Your task to perform on an android device: Open Yahoo.com Image 0: 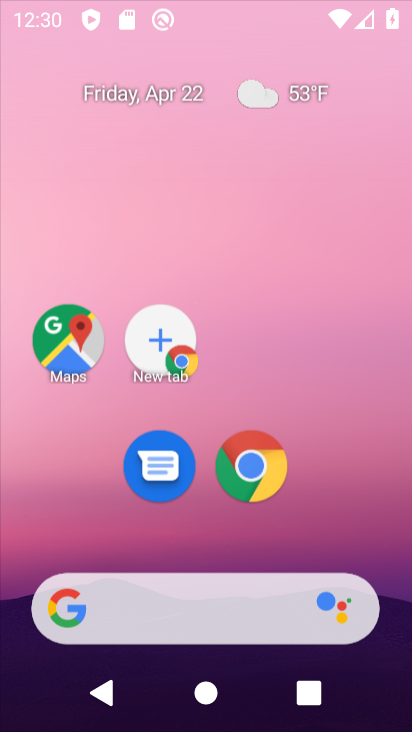
Step 0: click (330, 81)
Your task to perform on an android device: Open Yahoo.com Image 1: 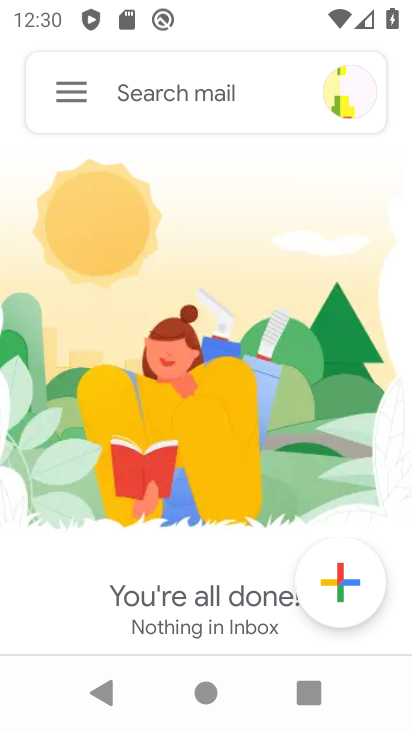
Step 1: press back button
Your task to perform on an android device: Open Yahoo.com Image 2: 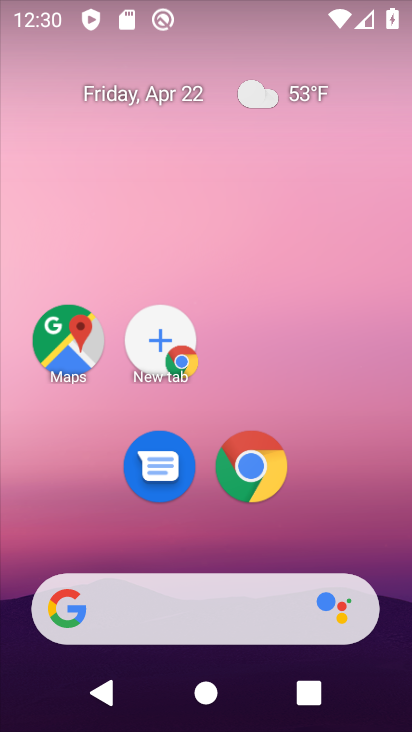
Step 2: drag from (341, 545) to (235, 34)
Your task to perform on an android device: Open Yahoo.com Image 3: 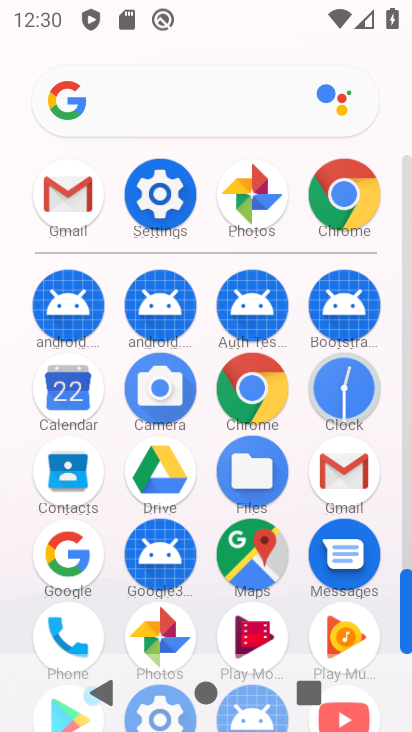
Step 3: click (336, 190)
Your task to perform on an android device: Open Yahoo.com Image 4: 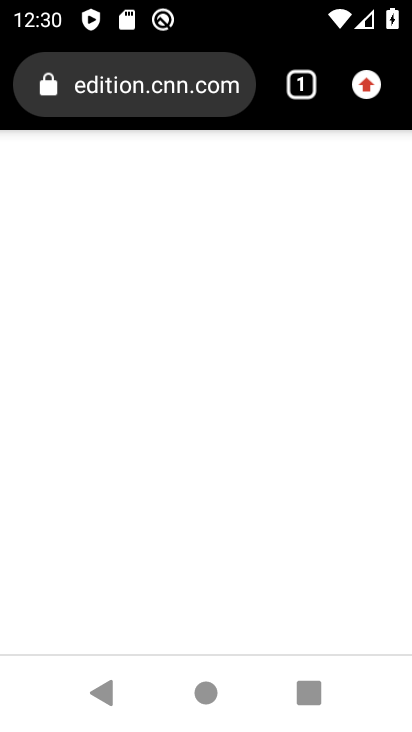
Step 4: click (158, 92)
Your task to perform on an android device: Open Yahoo.com Image 5: 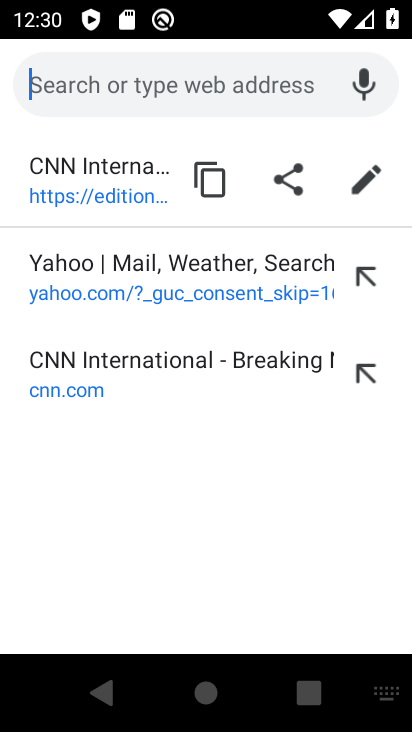
Step 5: type "Yahoo.com"
Your task to perform on an android device: Open Yahoo.com Image 6: 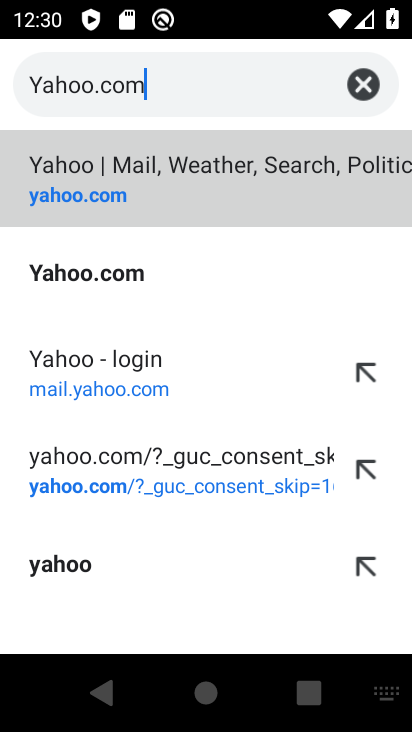
Step 6: type ""
Your task to perform on an android device: Open Yahoo.com Image 7: 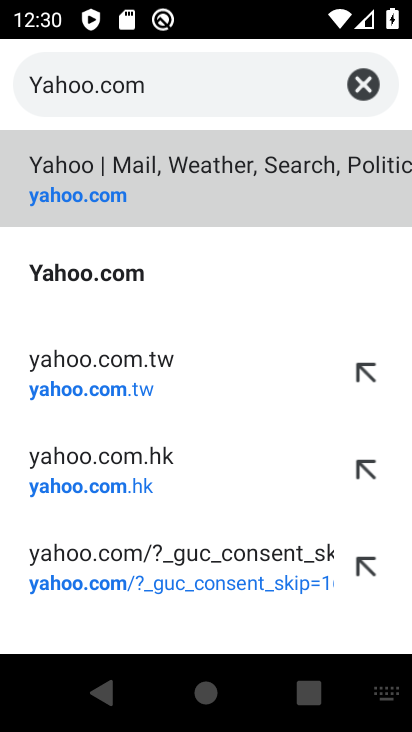
Step 7: click (176, 164)
Your task to perform on an android device: Open Yahoo.com Image 8: 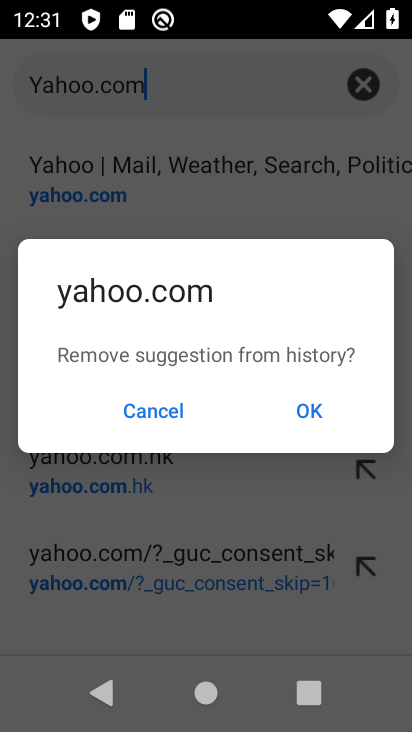
Step 8: click (304, 408)
Your task to perform on an android device: Open Yahoo.com Image 9: 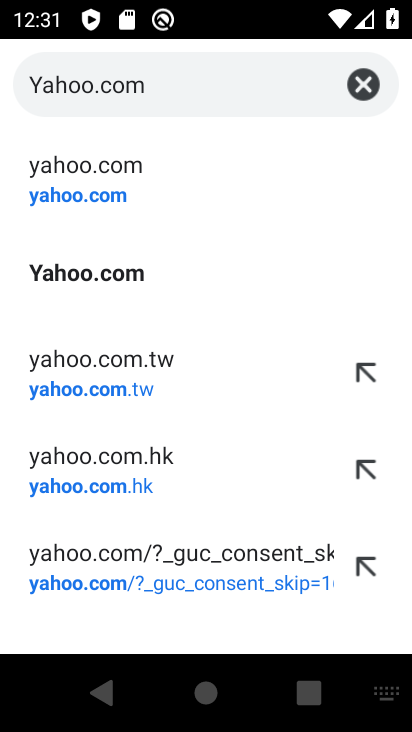
Step 9: click (123, 185)
Your task to perform on an android device: Open Yahoo.com Image 10: 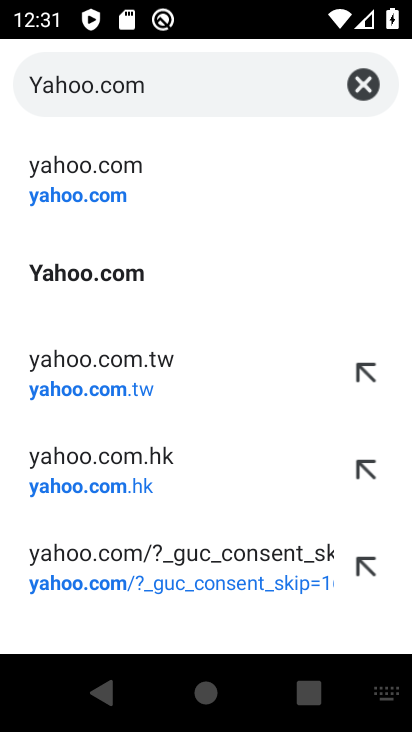
Step 10: click (122, 179)
Your task to perform on an android device: Open Yahoo.com Image 11: 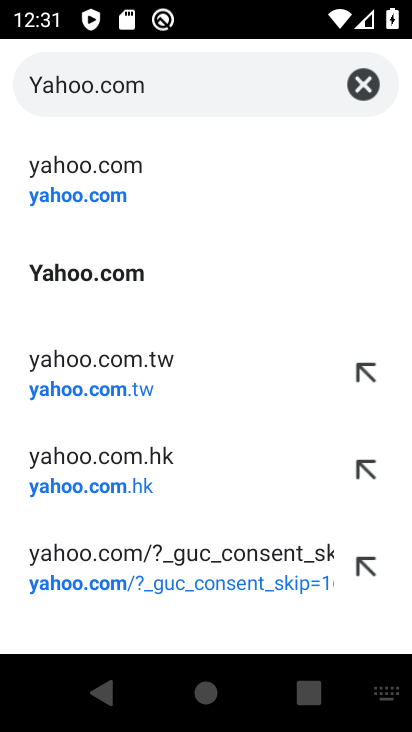
Step 11: click (122, 269)
Your task to perform on an android device: Open Yahoo.com Image 12: 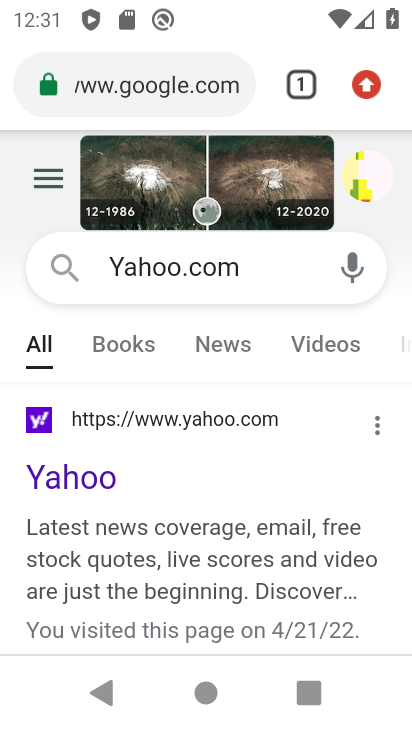
Step 12: click (50, 483)
Your task to perform on an android device: Open Yahoo.com Image 13: 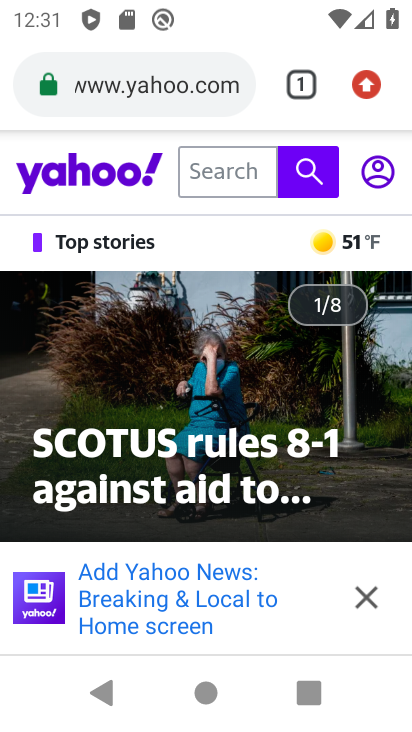
Step 13: task complete